Your task to perform on an android device: Open the Play Movies app and select the watchlist tab. Image 0: 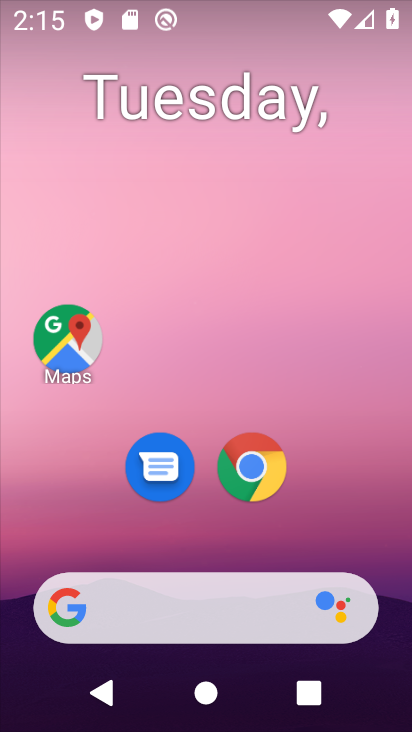
Step 0: drag from (362, 549) to (368, 108)
Your task to perform on an android device: Open the Play Movies app and select the watchlist tab. Image 1: 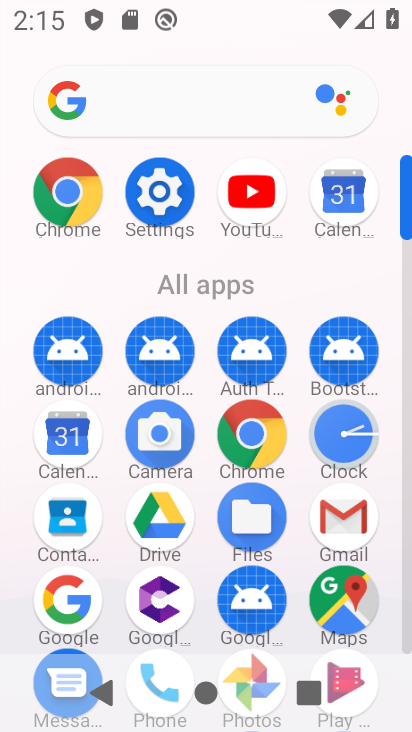
Step 1: drag from (386, 599) to (403, 278)
Your task to perform on an android device: Open the Play Movies app and select the watchlist tab. Image 2: 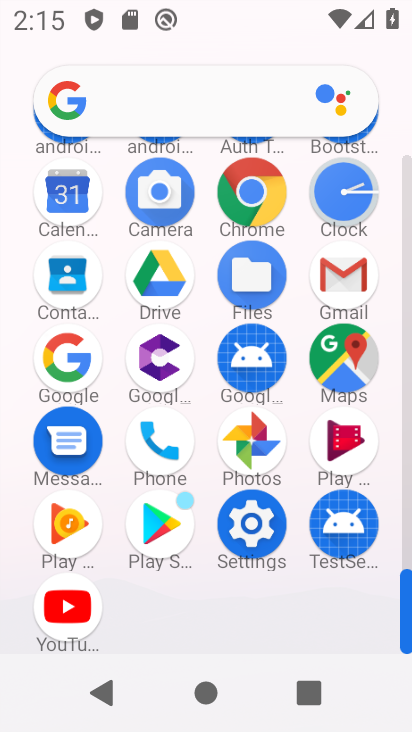
Step 2: click (351, 456)
Your task to perform on an android device: Open the Play Movies app and select the watchlist tab. Image 3: 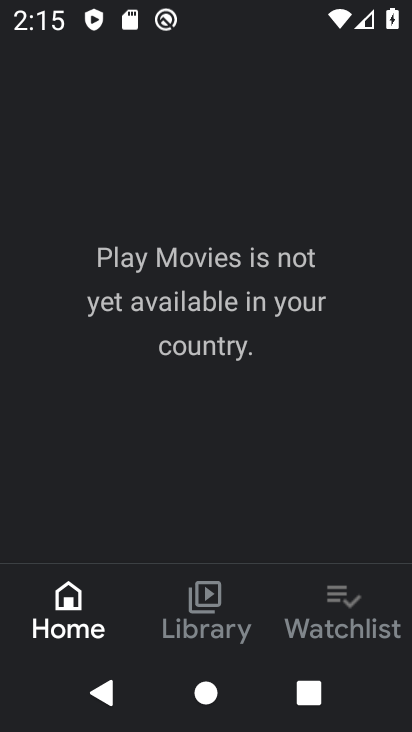
Step 3: click (339, 625)
Your task to perform on an android device: Open the Play Movies app and select the watchlist tab. Image 4: 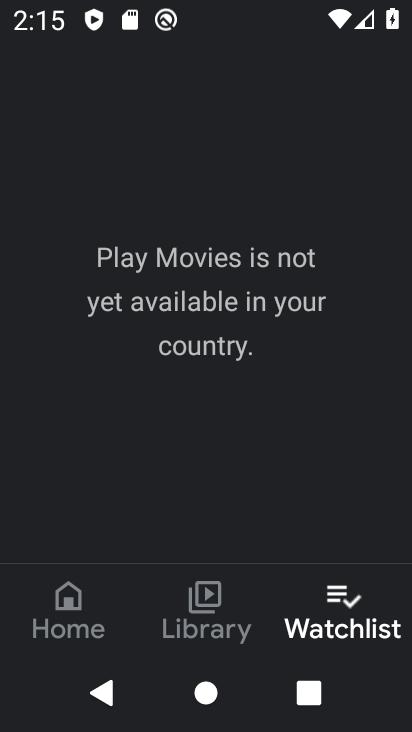
Step 4: task complete